Your task to perform on an android device: change the clock display to analog Image 0: 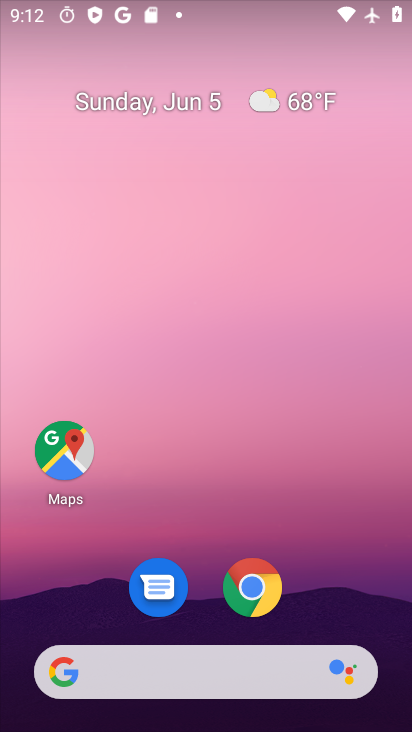
Step 0: drag from (333, 589) to (311, 15)
Your task to perform on an android device: change the clock display to analog Image 1: 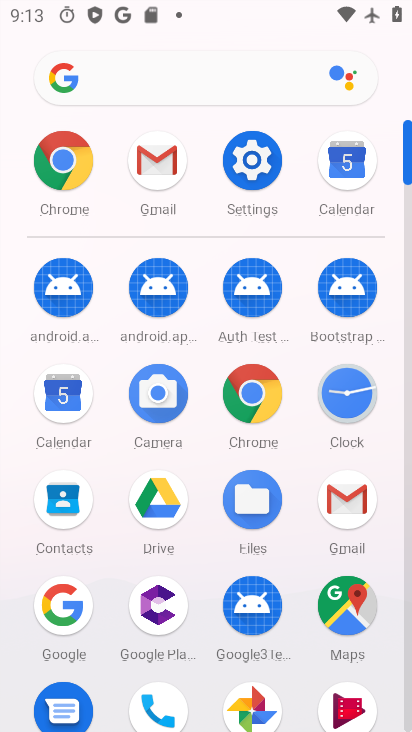
Step 1: click (328, 379)
Your task to perform on an android device: change the clock display to analog Image 2: 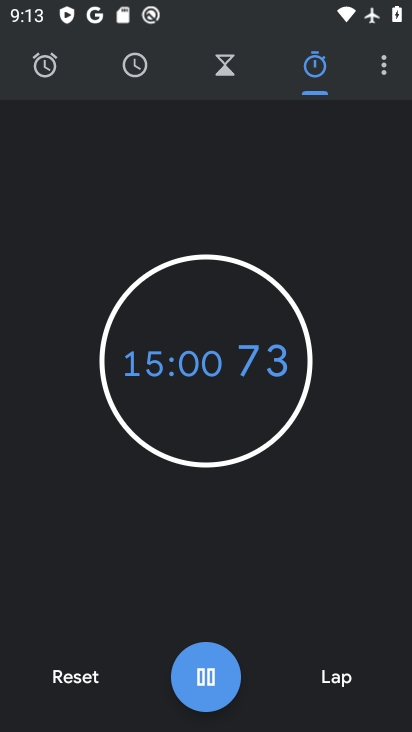
Step 2: click (383, 68)
Your task to perform on an android device: change the clock display to analog Image 3: 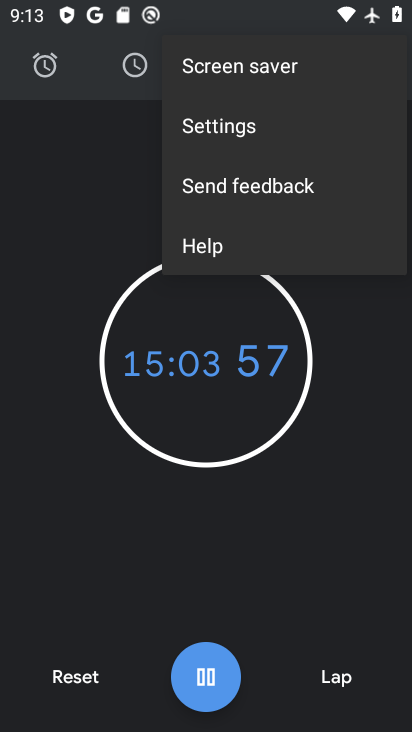
Step 3: click (264, 137)
Your task to perform on an android device: change the clock display to analog Image 4: 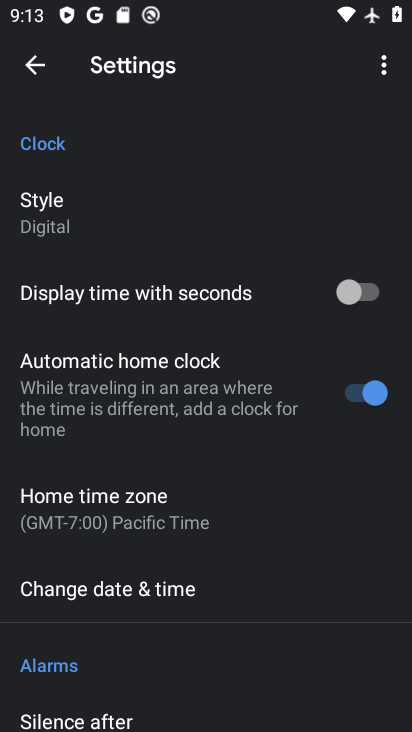
Step 4: click (69, 235)
Your task to perform on an android device: change the clock display to analog Image 5: 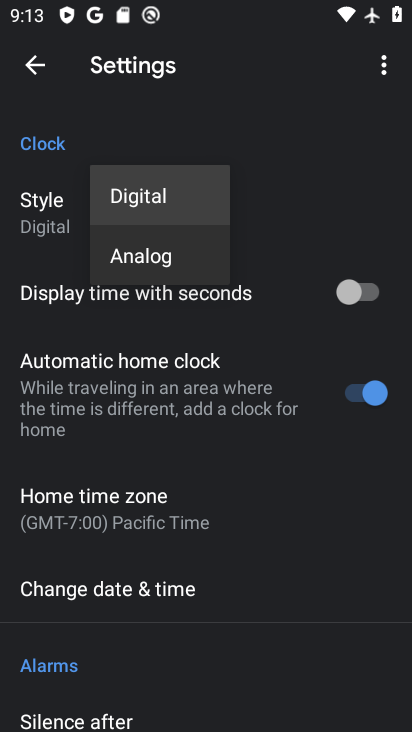
Step 5: click (111, 250)
Your task to perform on an android device: change the clock display to analog Image 6: 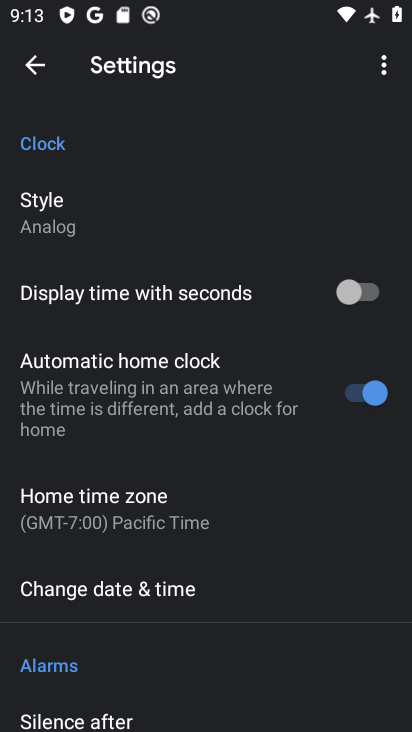
Step 6: task complete